Your task to perform on an android device: find which apps use the phone's location Image 0: 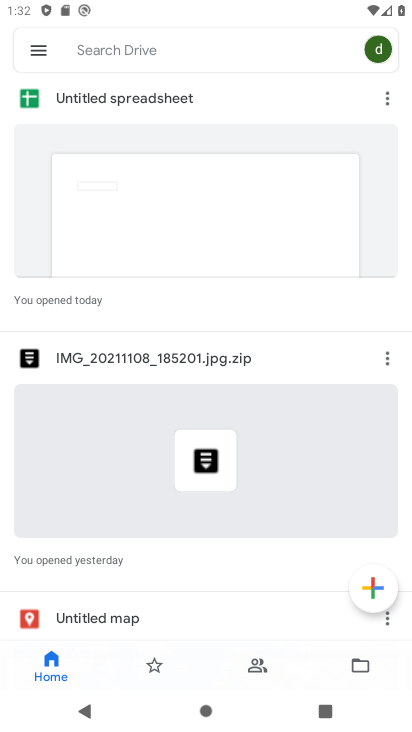
Step 0: press home button
Your task to perform on an android device: find which apps use the phone's location Image 1: 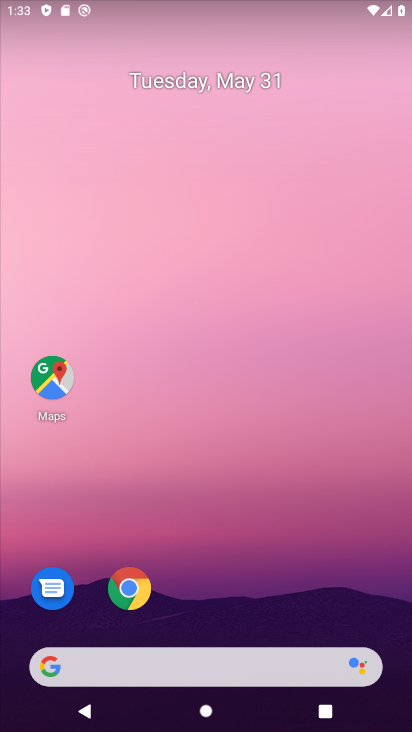
Step 1: drag from (239, 617) to (204, 122)
Your task to perform on an android device: find which apps use the phone's location Image 2: 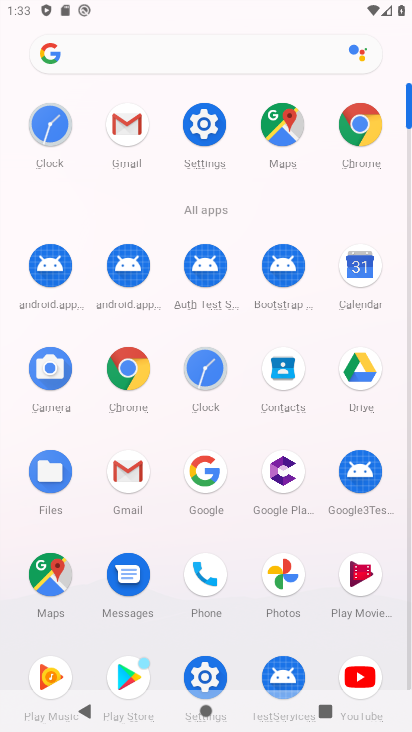
Step 2: click (214, 130)
Your task to perform on an android device: find which apps use the phone's location Image 3: 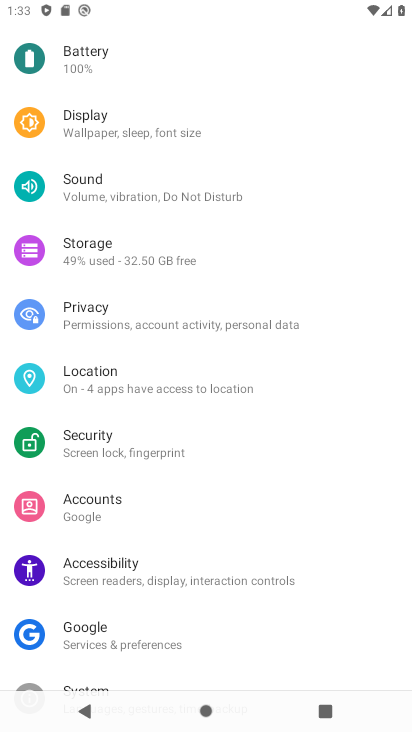
Step 3: click (198, 364)
Your task to perform on an android device: find which apps use the phone's location Image 4: 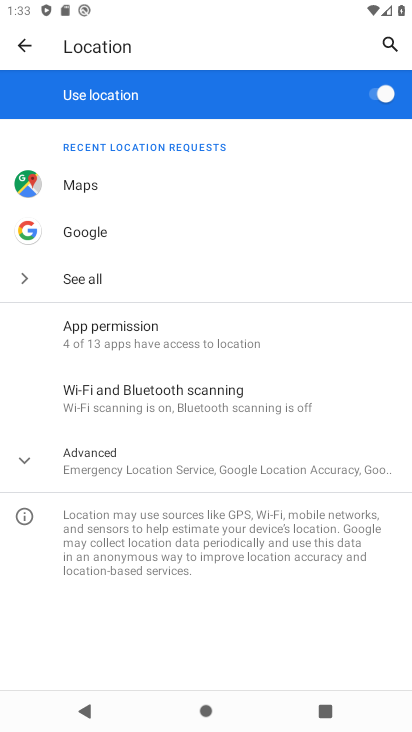
Step 4: click (185, 343)
Your task to perform on an android device: find which apps use the phone's location Image 5: 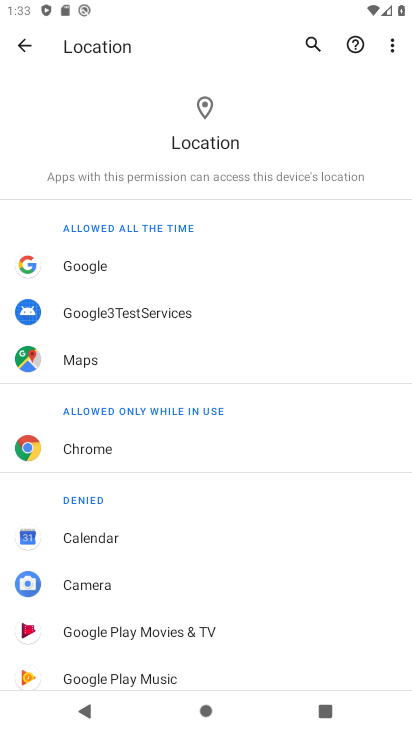
Step 5: task complete